Your task to perform on an android device: toggle airplane mode Image 0: 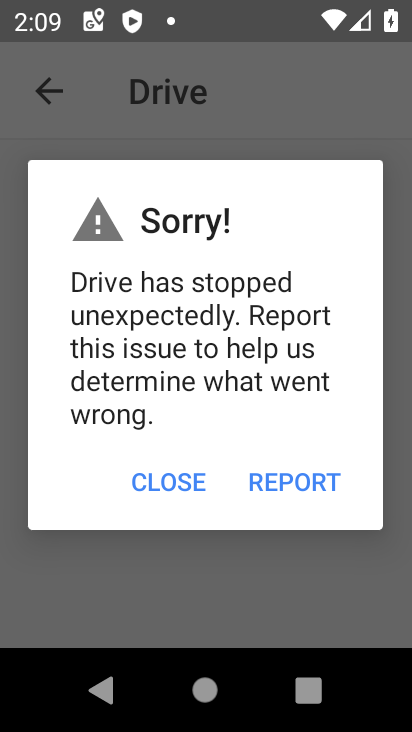
Step 0: drag from (323, 475) to (130, 118)
Your task to perform on an android device: toggle airplane mode Image 1: 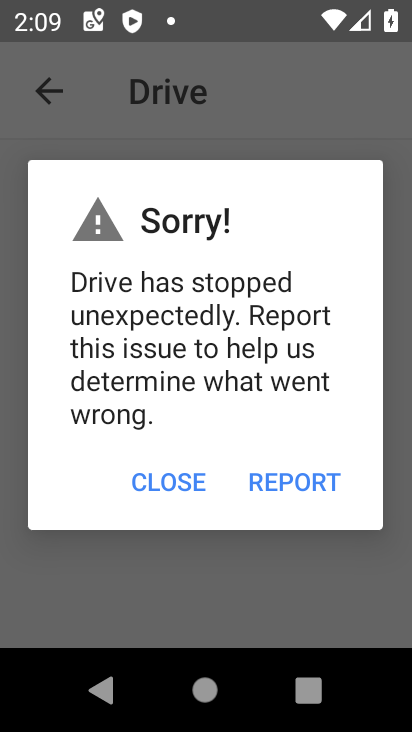
Step 1: click (163, 475)
Your task to perform on an android device: toggle airplane mode Image 2: 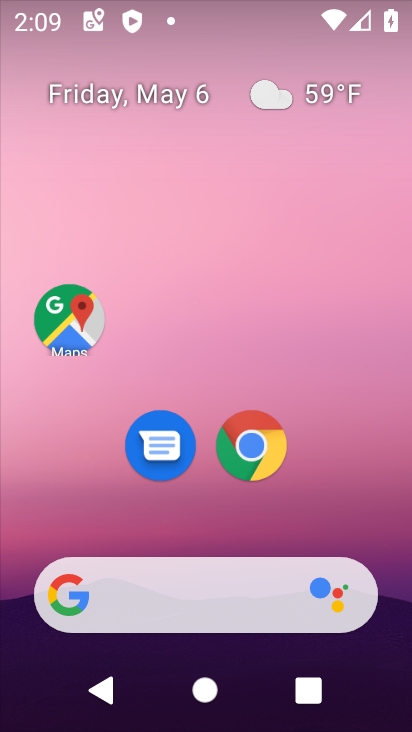
Step 2: drag from (309, 496) to (146, 83)
Your task to perform on an android device: toggle airplane mode Image 3: 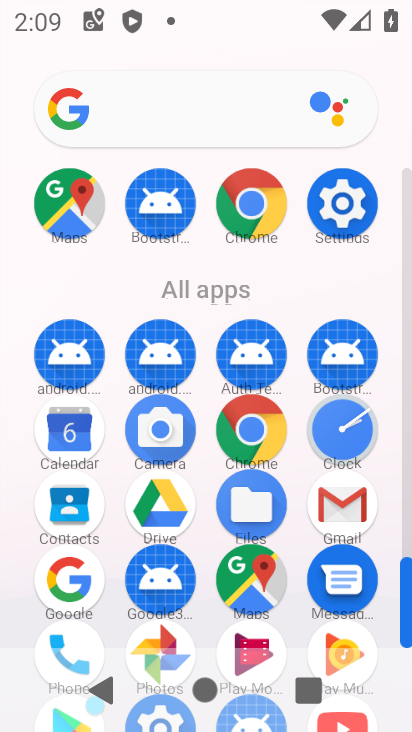
Step 3: click (358, 204)
Your task to perform on an android device: toggle airplane mode Image 4: 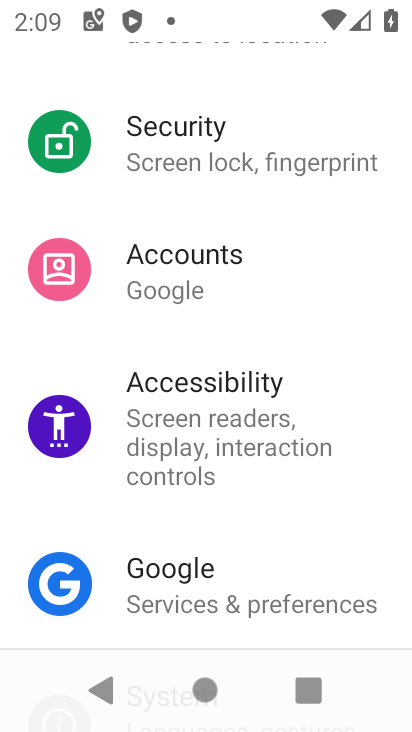
Step 4: drag from (167, 319) to (214, 505)
Your task to perform on an android device: toggle airplane mode Image 5: 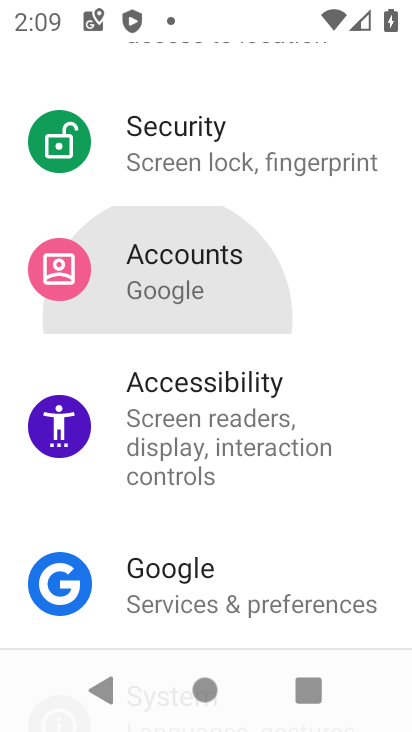
Step 5: drag from (171, 260) to (288, 542)
Your task to perform on an android device: toggle airplane mode Image 6: 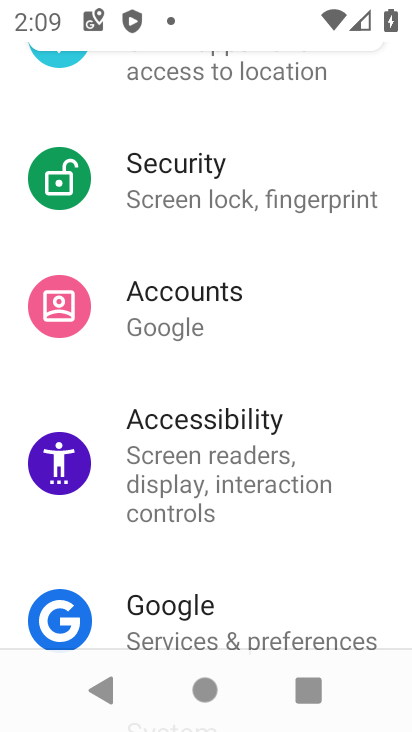
Step 6: drag from (257, 368) to (308, 506)
Your task to perform on an android device: toggle airplane mode Image 7: 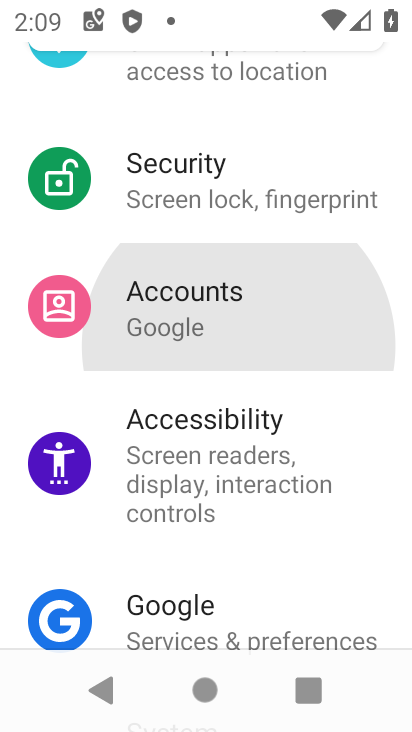
Step 7: drag from (217, 180) to (264, 466)
Your task to perform on an android device: toggle airplane mode Image 8: 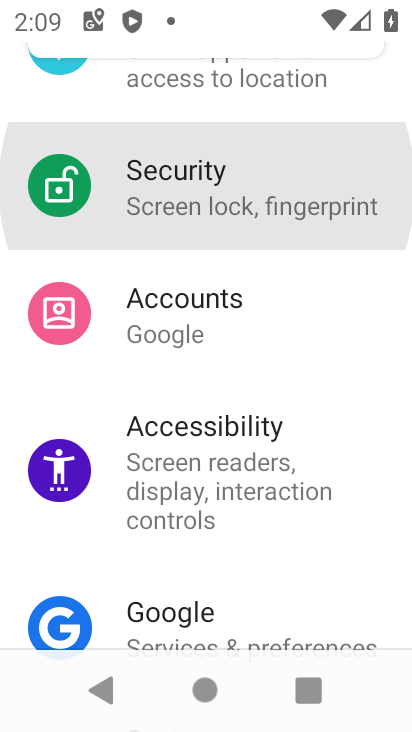
Step 8: drag from (233, 298) to (270, 460)
Your task to perform on an android device: toggle airplane mode Image 9: 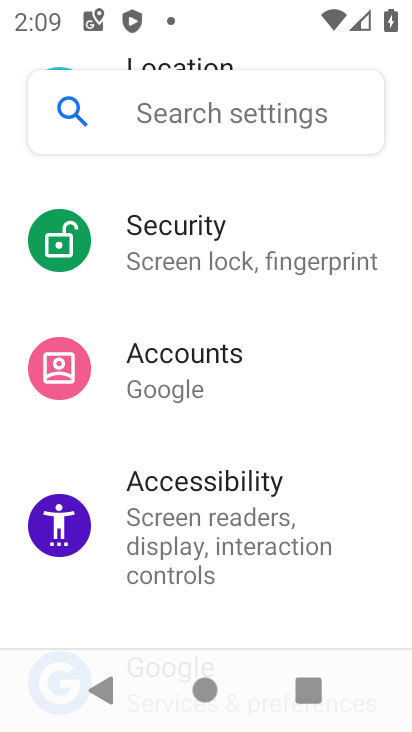
Step 9: drag from (209, 339) to (231, 534)
Your task to perform on an android device: toggle airplane mode Image 10: 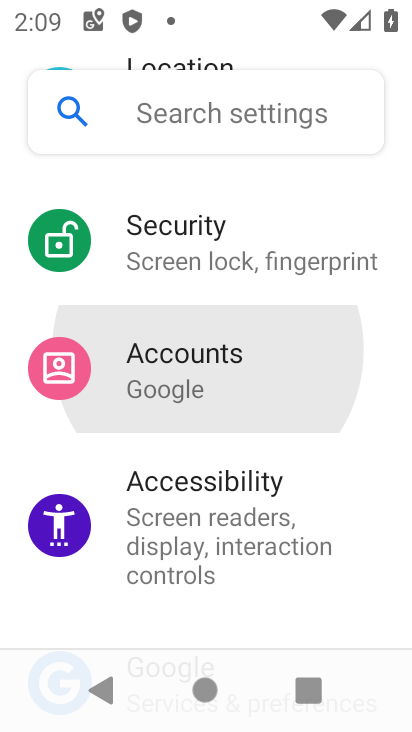
Step 10: drag from (204, 192) to (259, 545)
Your task to perform on an android device: toggle airplane mode Image 11: 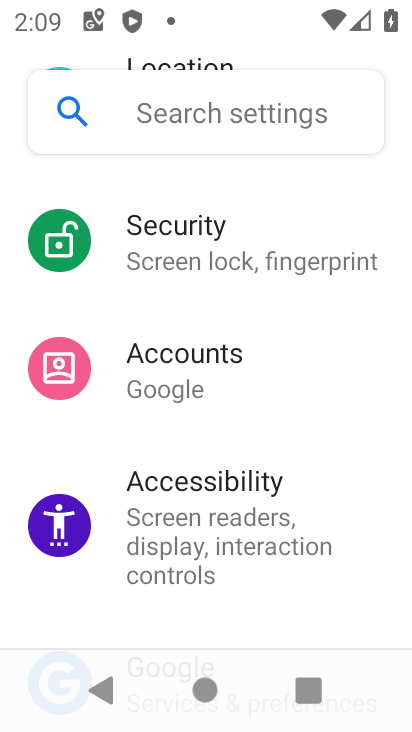
Step 11: click (221, 484)
Your task to perform on an android device: toggle airplane mode Image 12: 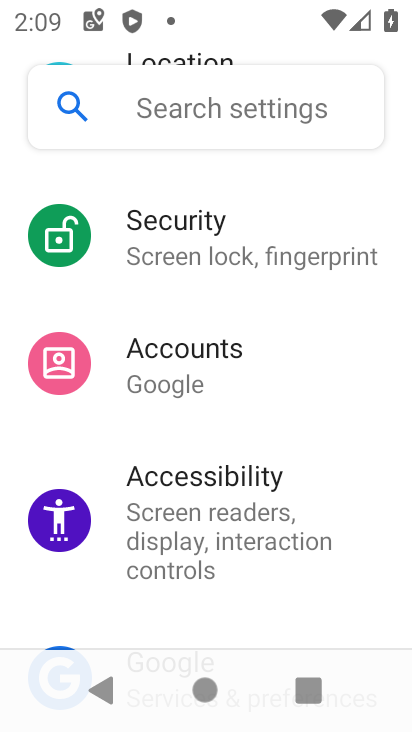
Step 12: drag from (163, 204) to (209, 513)
Your task to perform on an android device: toggle airplane mode Image 13: 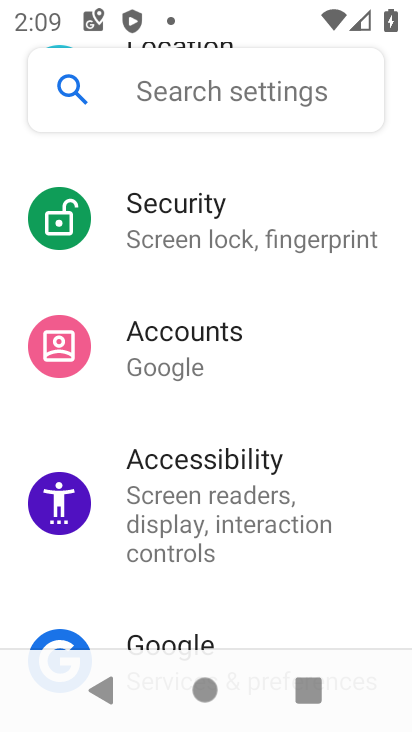
Step 13: drag from (252, 455) to (191, 453)
Your task to perform on an android device: toggle airplane mode Image 14: 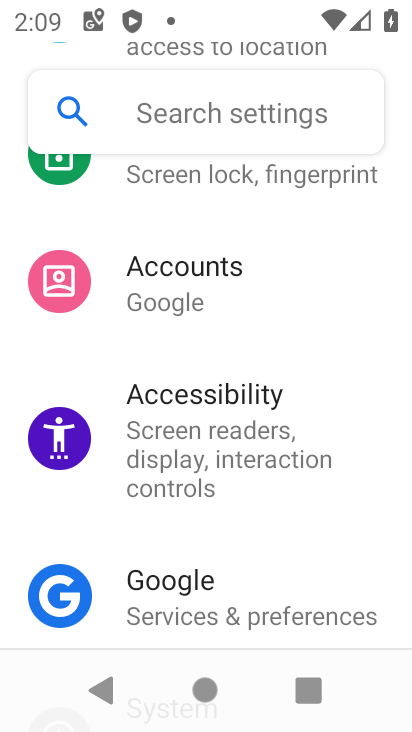
Step 14: drag from (184, 155) to (253, 491)
Your task to perform on an android device: toggle airplane mode Image 15: 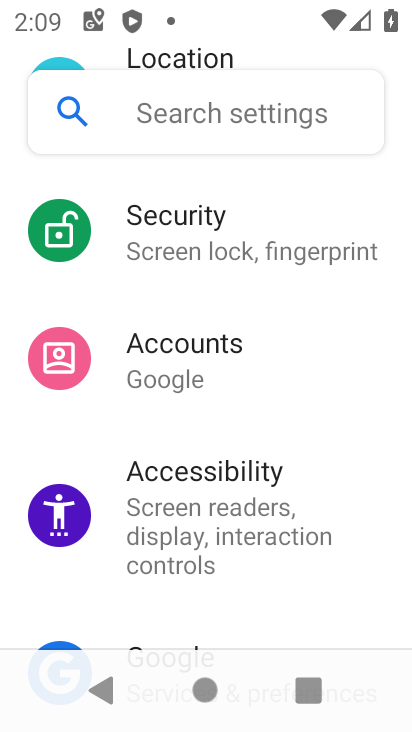
Step 15: drag from (121, 183) to (175, 547)
Your task to perform on an android device: toggle airplane mode Image 16: 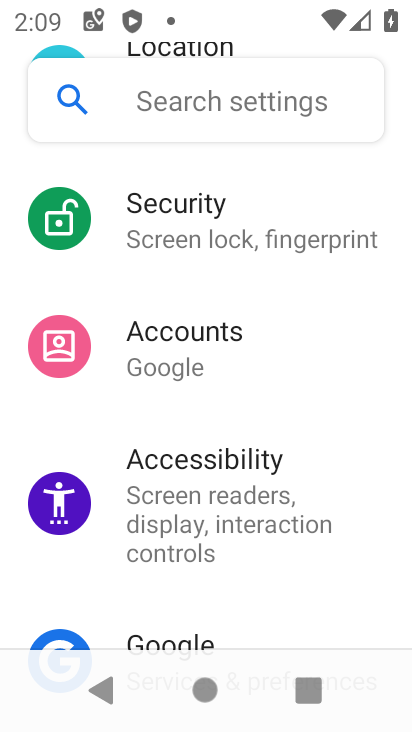
Step 16: click (217, 548)
Your task to perform on an android device: toggle airplane mode Image 17: 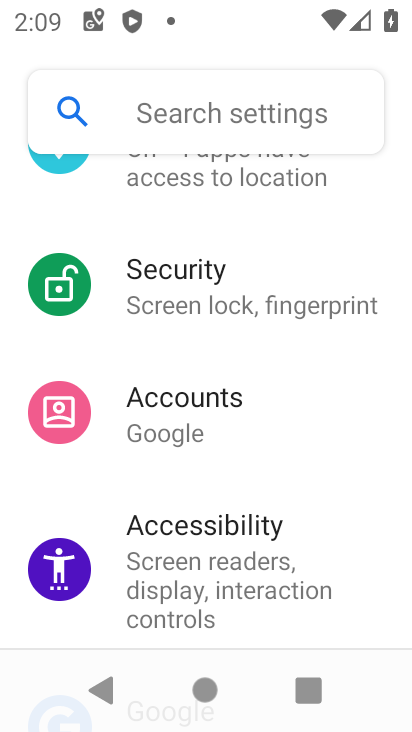
Step 17: drag from (173, 91) to (244, 493)
Your task to perform on an android device: toggle airplane mode Image 18: 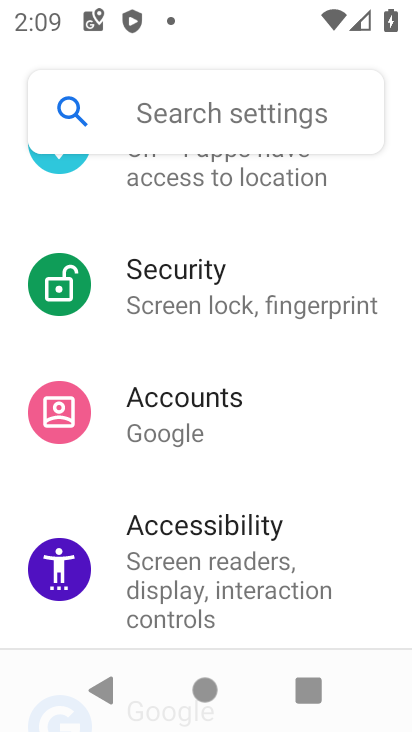
Step 18: drag from (173, 295) to (211, 505)
Your task to perform on an android device: toggle airplane mode Image 19: 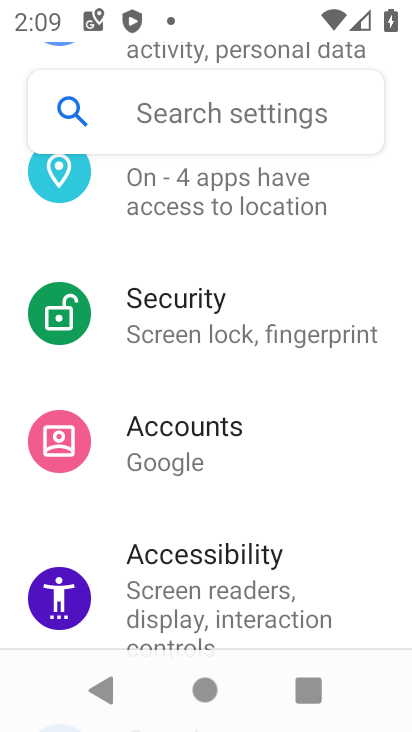
Step 19: drag from (163, 320) to (210, 562)
Your task to perform on an android device: toggle airplane mode Image 20: 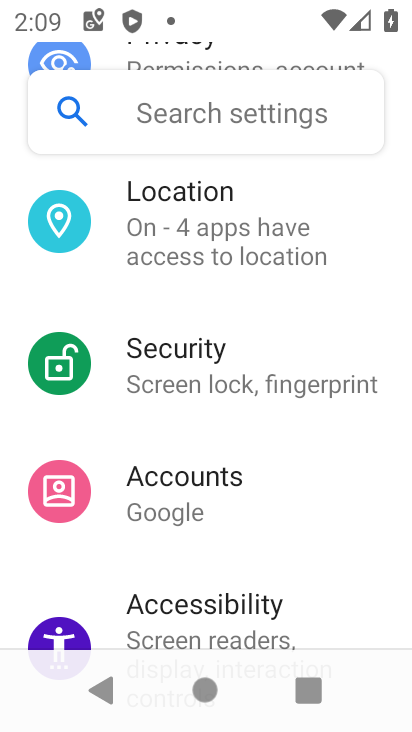
Step 20: drag from (260, 515) to (265, 579)
Your task to perform on an android device: toggle airplane mode Image 21: 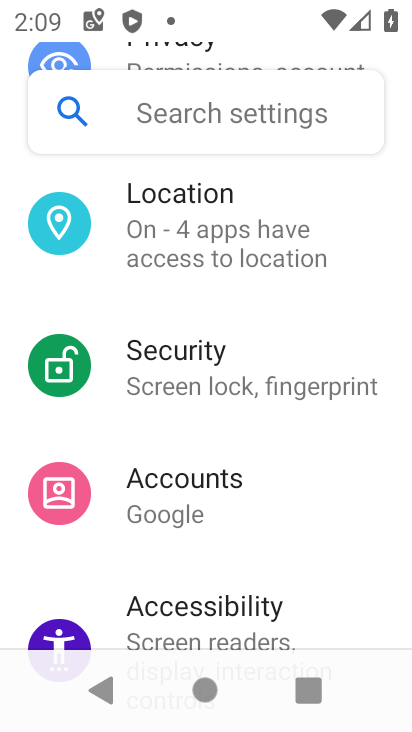
Step 21: click (277, 487)
Your task to perform on an android device: toggle airplane mode Image 22: 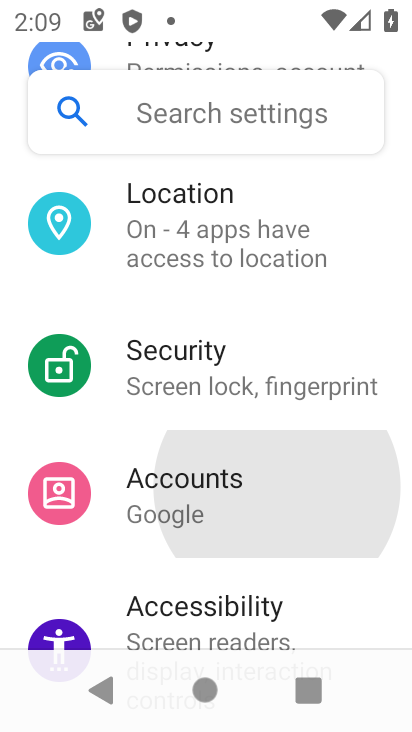
Step 22: drag from (210, 364) to (214, 549)
Your task to perform on an android device: toggle airplane mode Image 23: 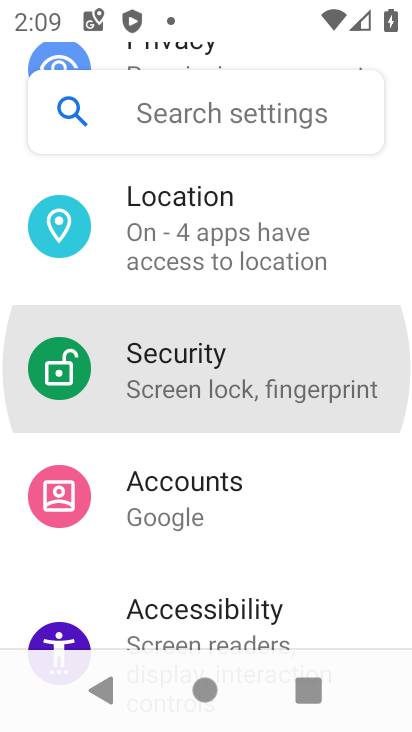
Step 23: click (238, 567)
Your task to perform on an android device: toggle airplane mode Image 24: 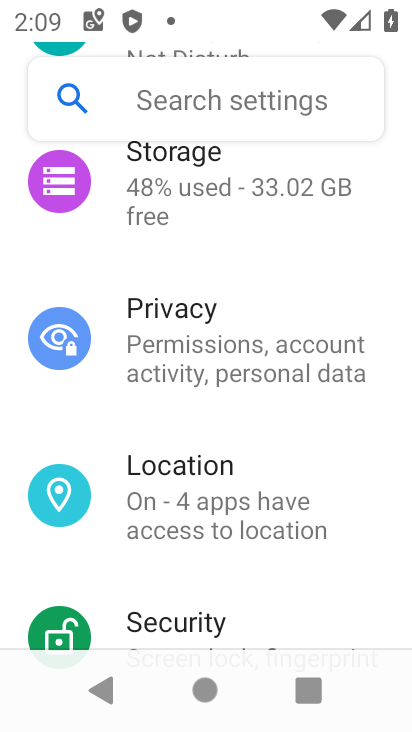
Step 24: click (177, 584)
Your task to perform on an android device: toggle airplane mode Image 25: 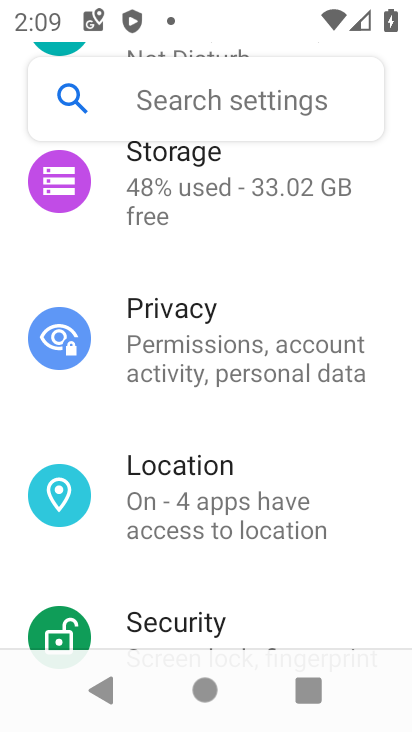
Step 25: drag from (199, 271) to (236, 558)
Your task to perform on an android device: toggle airplane mode Image 26: 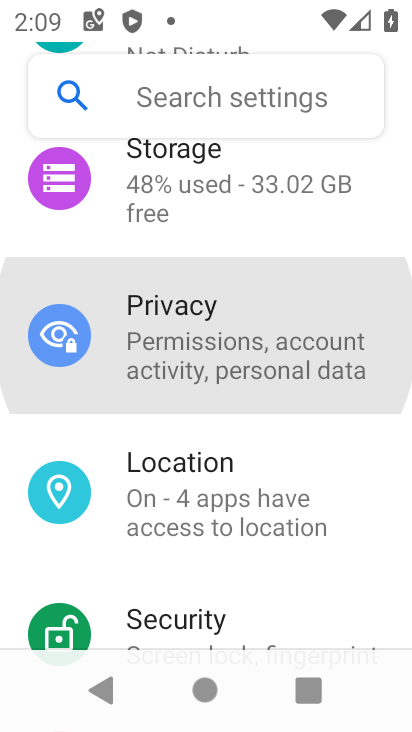
Step 26: drag from (238, 447) to (254, 541)
Your task to perform on an android device: toggle airplane mode Image 27: 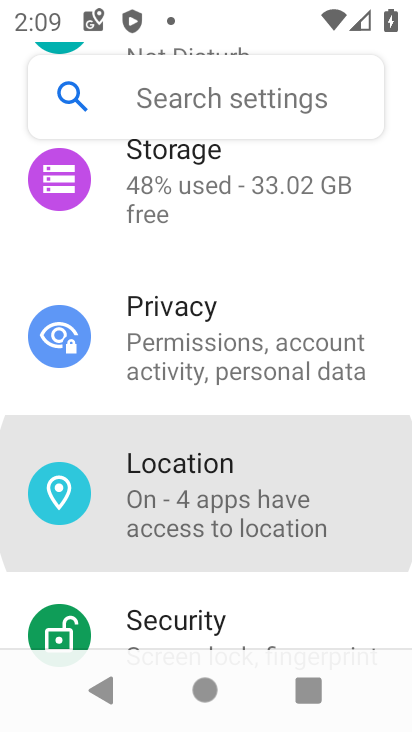
Step 27: drag from (205, 293) to (257, 585)
Your task to perform on an android device: toggle airplane mode Image 28: 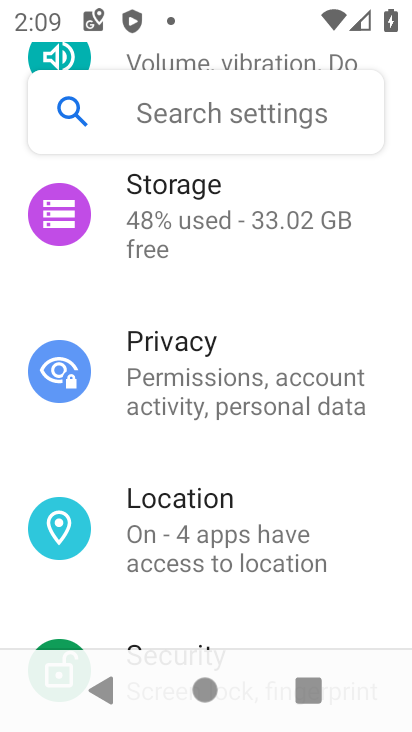
Step 28: drag from (173, 215) to (230, 500)
Your task to perform on an android device: toggle airplane mode Image 29: 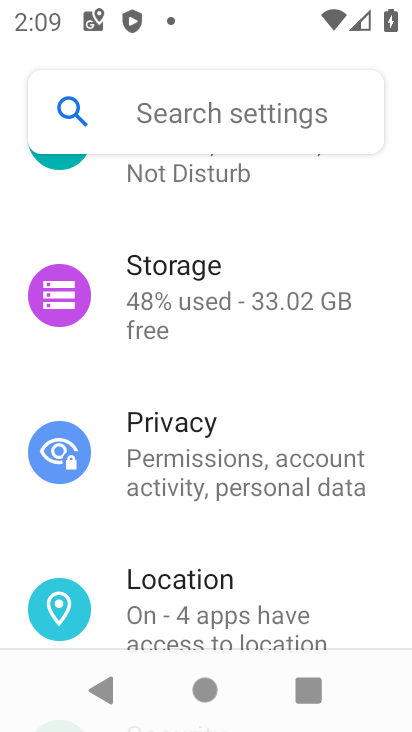
Step 29: drag from (204, 340) to (246, 516)
Your task to perform on an android device: toggle airplane mode Image 30: 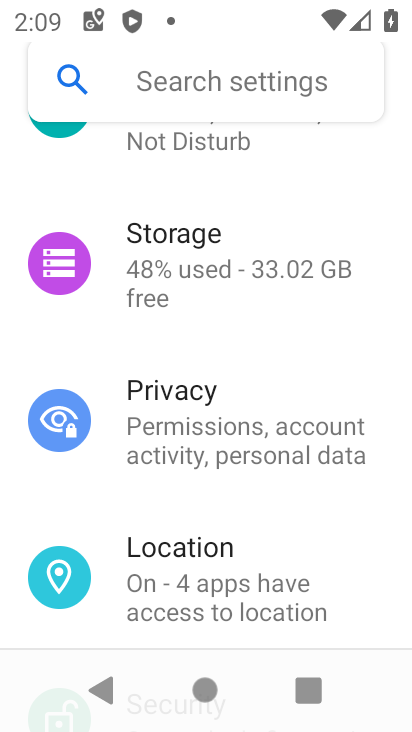
Step 30: drag from (199, 204) to (245, 482)
Your task to perform on an android device: toggle airplane mode Image 31: 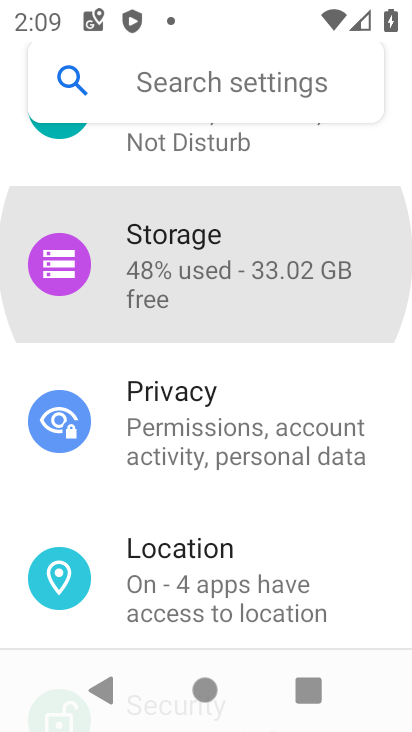
Step 31: drag from (162, 192) to (213, 468)
Your task to perform on an android device: toggle airplane mode Image 32: 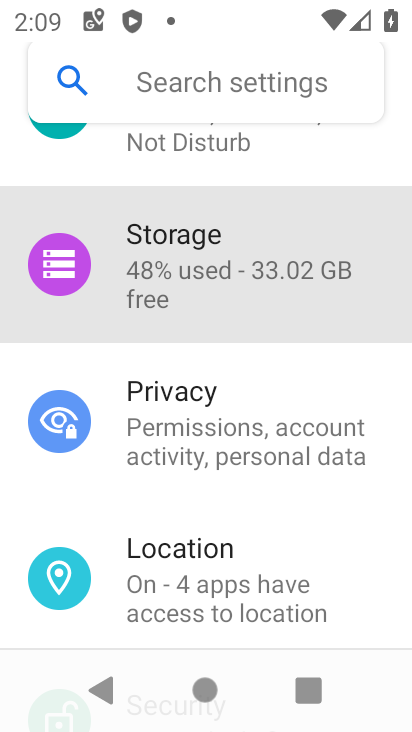
Step 32: drag from (199, 406) to (212, 536)
Your task to perform on an android device: toggle airplane mode Image 33: 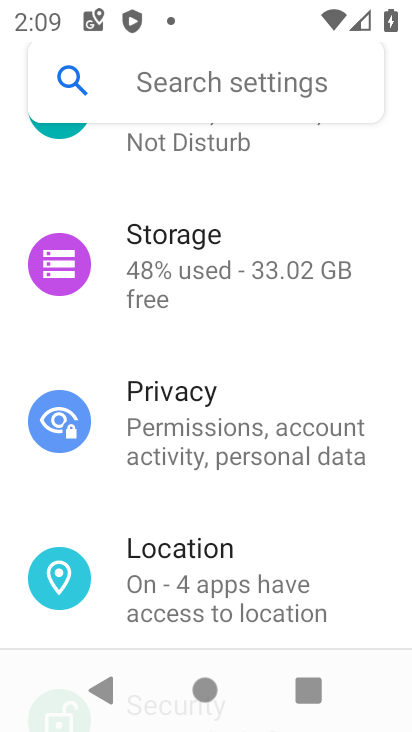
Step 33: drag from (158, 266) to (226, 521)
Your task to perform on an android device: toggle airplane mode Image 34: 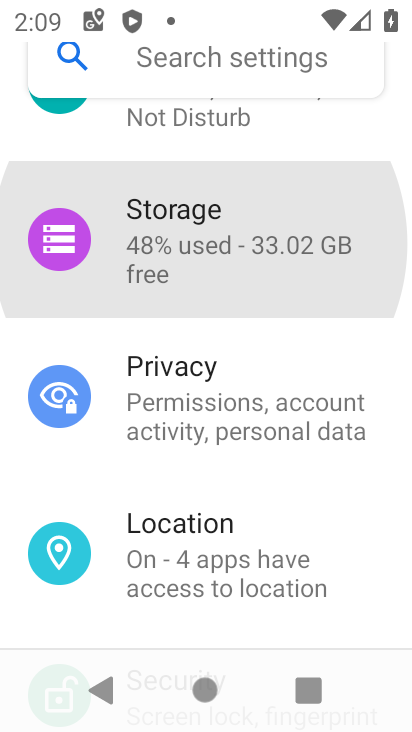
Step 34: drag from (227, 256) to (222, 445)
Your task to perform on an android device: toggle airplane mode Image 35: 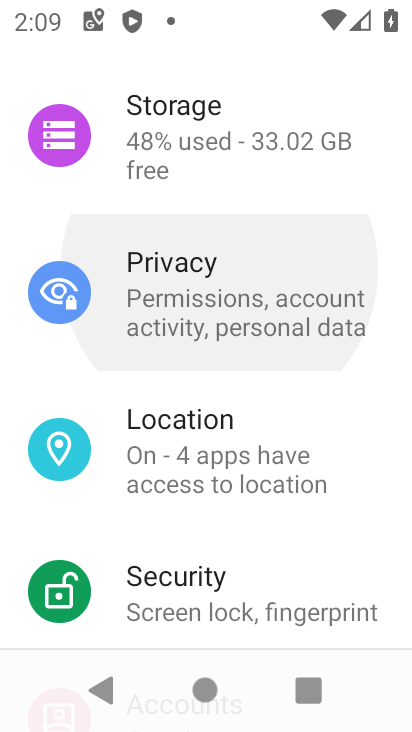
Step 35: drag from (128, 241) to (171, 495)
Your task to perform on an android device: toggle airplane mode Image 36: 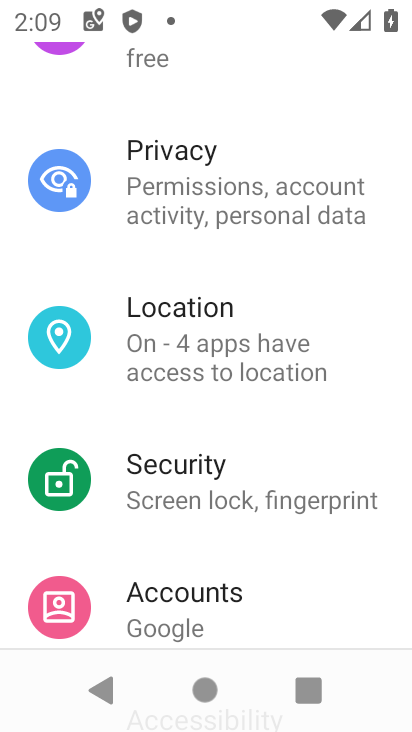
Step 36: drag from (183, 279) to (221, 520)
Your task to perform on an android device: toggle airplane mode Image 37: 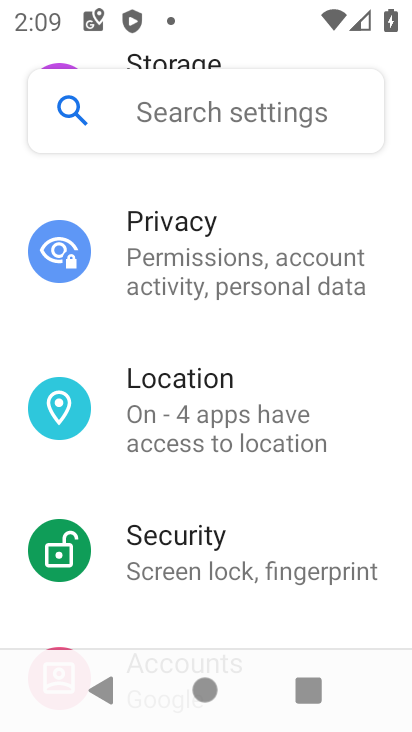
Step 37: drag from (179, 204) to (212, 450)
Your task to perform on an android device: toggle airplane mode Image 38: 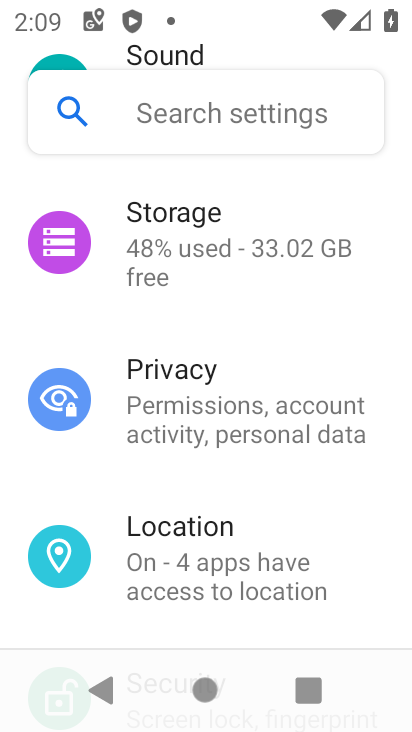
Step 38: drag from (206, 199) to (235, 461)
Your task to perform on an android device: toggle airplane mode Image 39: 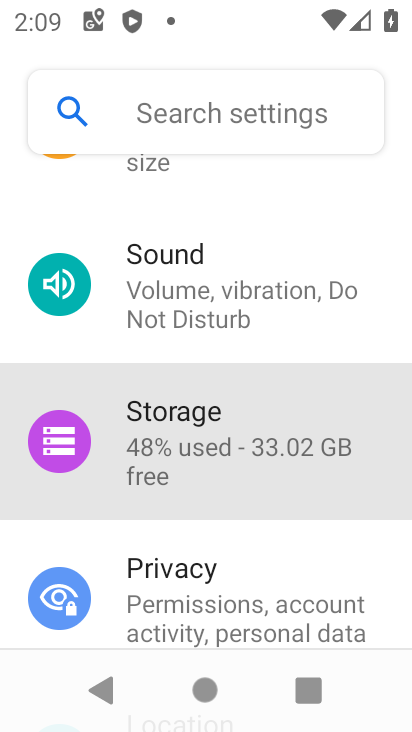
Step 39: drag from (228, 338) to (257, 550)
Your task to perform on an android device: toggle airplane mode Image 40: 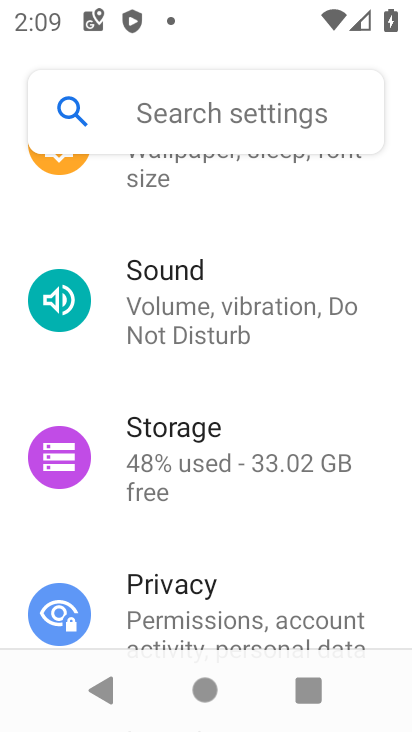
Step 40: drag from (195, 228) to (256, 510)
Your task to perform on an android device: toggle airplane mode Image 41: 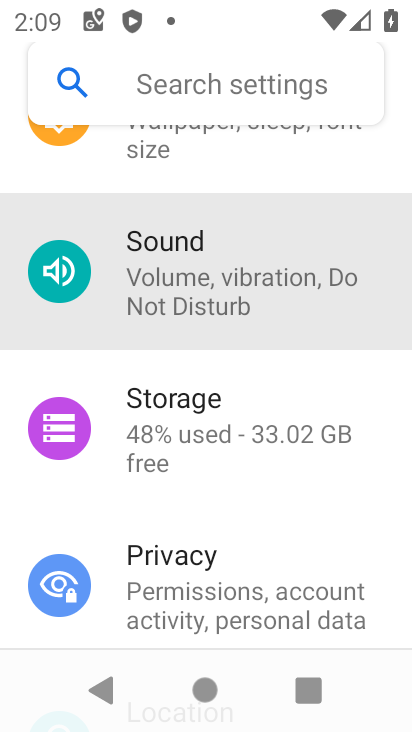
Step 41: drag from (174, 243) to (224, 512)
Your task to perform on an android device: toggle airplane mode Image 42: 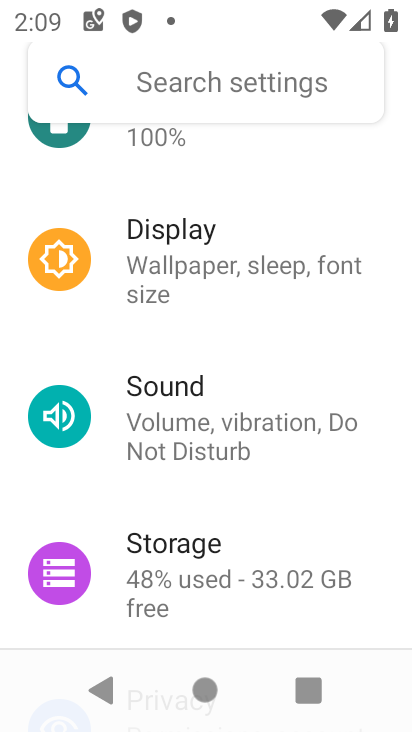
Step 42: drag from (198, 321) to (261, 588)
Your task to perform on an android device: toggle airplane mode Image 43: 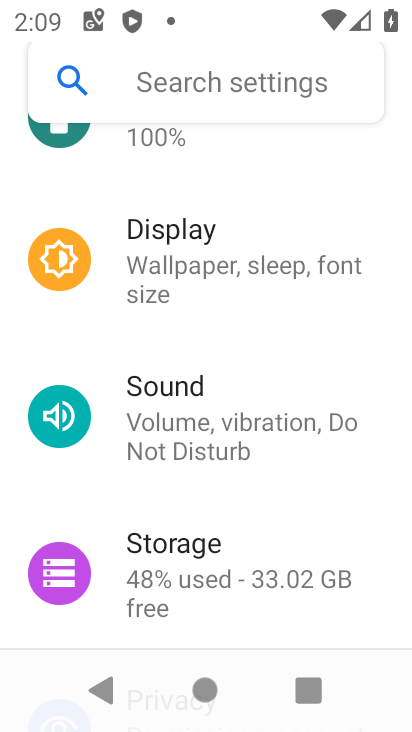
Step 43: drag from (232, 315) to (257, 624)
Your task to perform on an android device: toggle airplane mode Image 44: 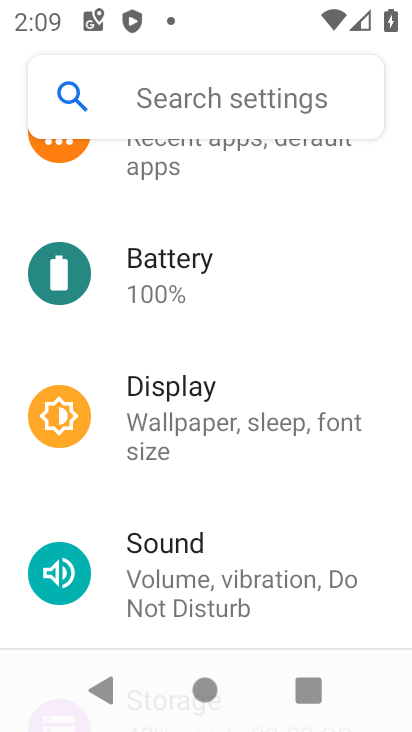
Step 44: drag from (195, 241) to (206, 590)
Your task to perform on an android device: toggle airplane mode Image 45: 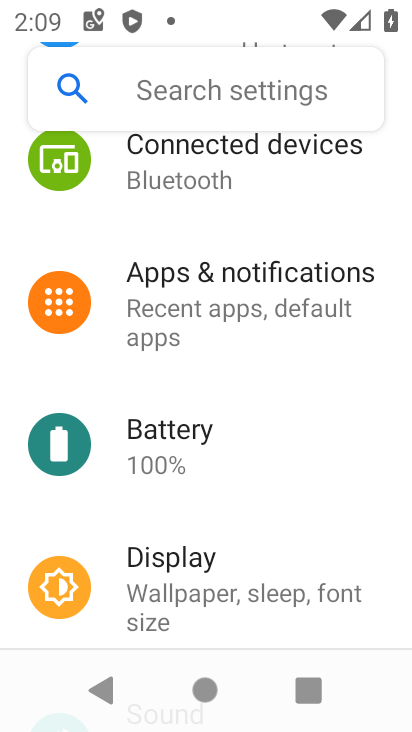
Step 45: drag from (203, 172) to (220, 580)
Your task to perform on an android device: toggle airplane mode Image 46: 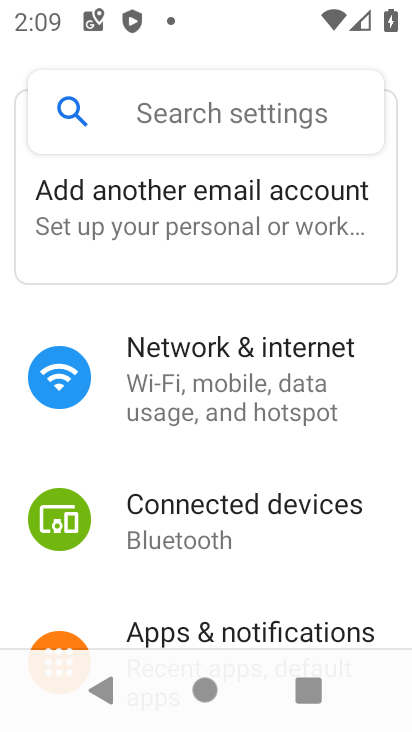
Step 46: click (211, 364)
Your task to perform on an android device: toggle airplane mode Image 47: 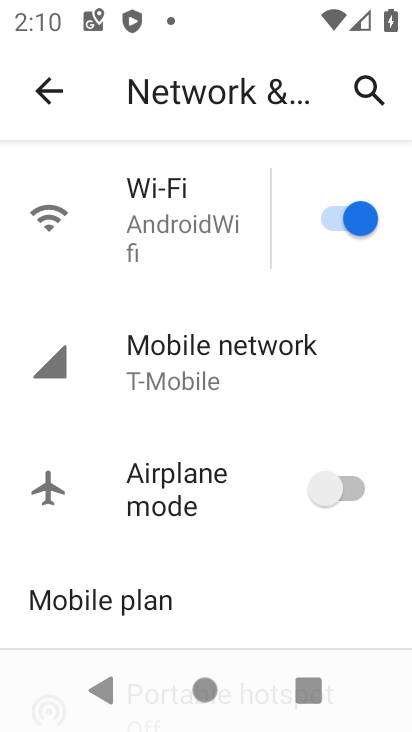
Step 47: click (325, 488)
Your task to perform on an android device: toggle airplane mode Image 48: 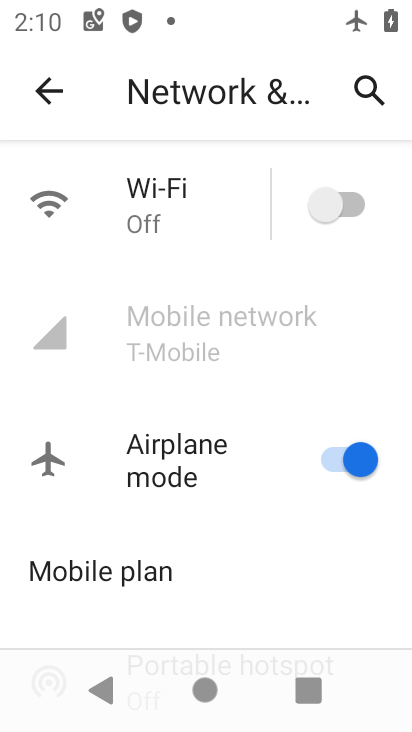
Step 48: task complete